Your task to perform on an android device: Do I have any events today? Image 0: 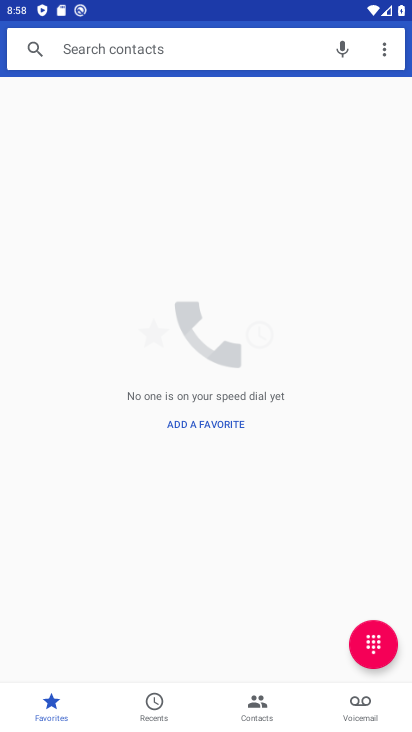
Step 0: press home button
Your task to perform on an android device: Do I have any events today? Image 1: 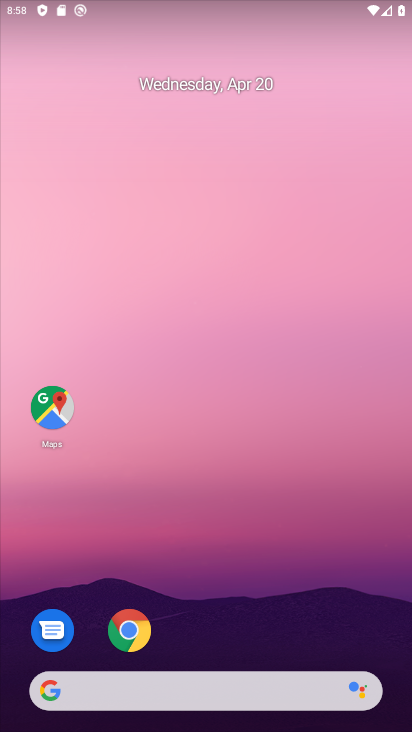
Step 1: drag from (341, 633) to (251, 132)
Your task to perform on an android device: Do I have any events today? Image 2: 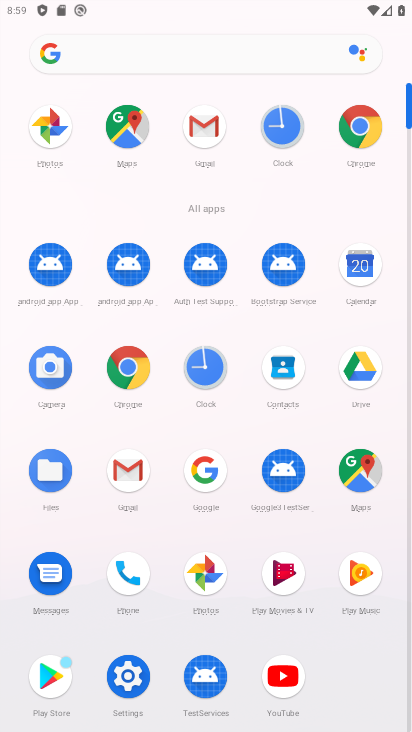
Step 2: click (364, 265)
Your task to perform on an android device: Do I have any events today? Image 3: 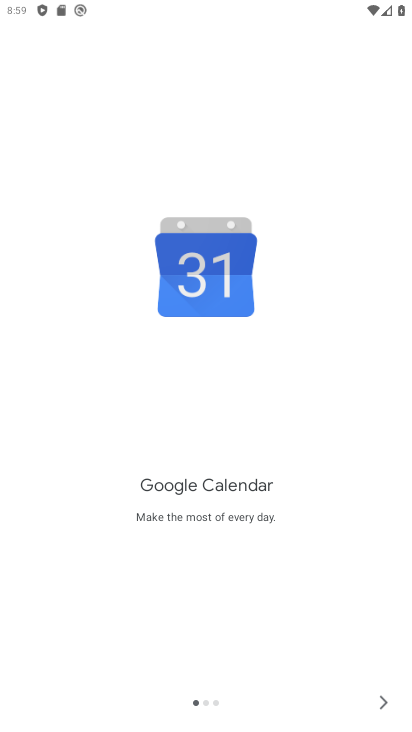
Step 3: click (380, 698)
Your task to perform on an android device: Do I have any events today? Image 4: 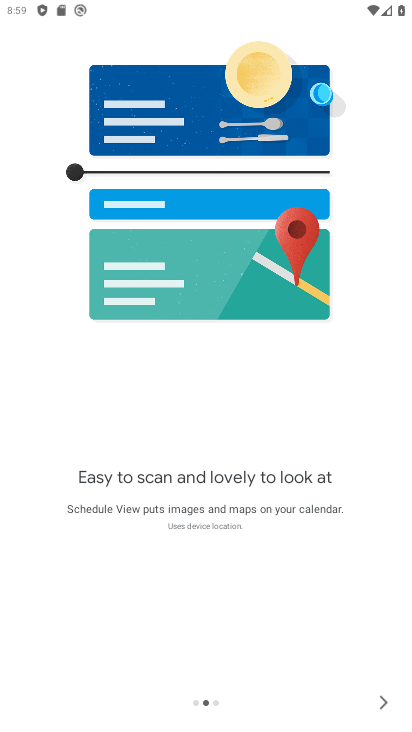
Step 4: click (380, 698)
Your task to perform on an android device: Do I have any events today? Image 5: 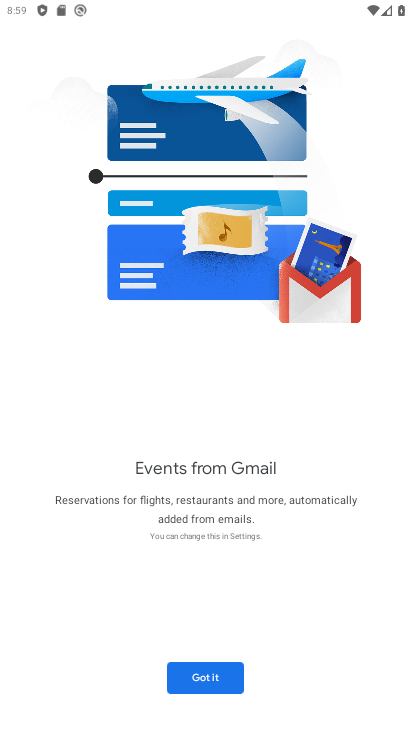
Step 5: click (225, 668)
Your task to perform on an android device: Do I have any events today? Image 6: 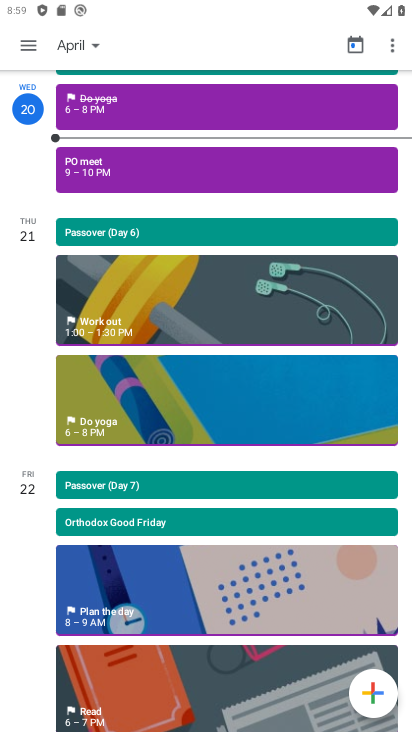
Step 6: click (91, 50)
Your task to perform on an android device: Do I have any events today? Image 7: 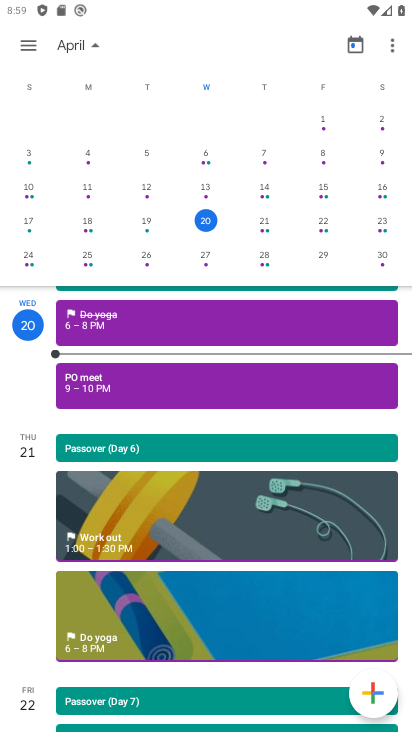
Step 7: click (22, 48)
Your task to perform on an android device: Do I have any events today? Image 8: 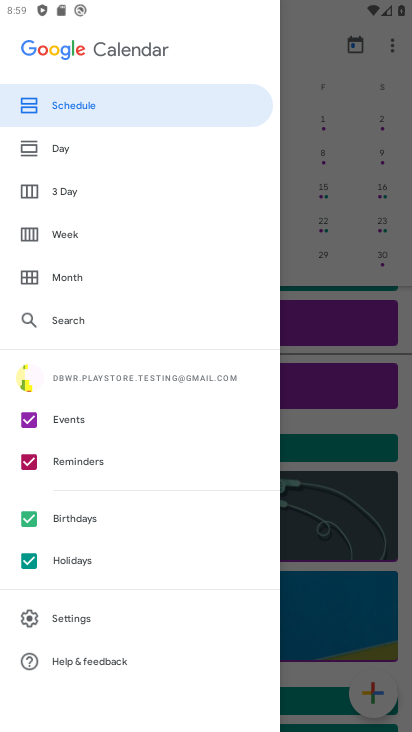
Step 8: click (28, 563)
Your task to perform on an android device: Do I have any events today? Image 9: 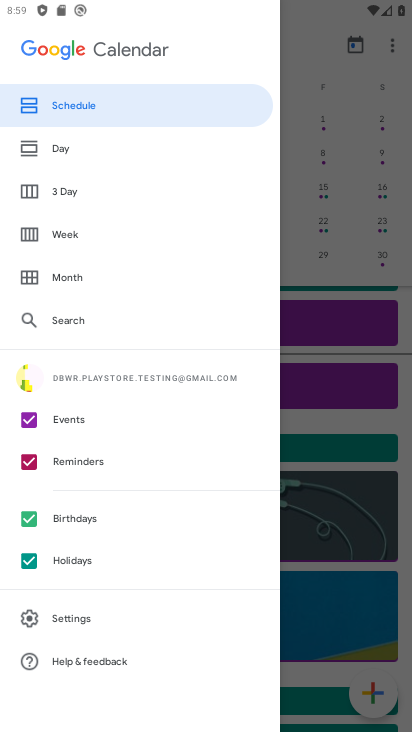
Step 9: click (27, 514)
Your task to perform on an android device: Do I have any events today? Image 10: 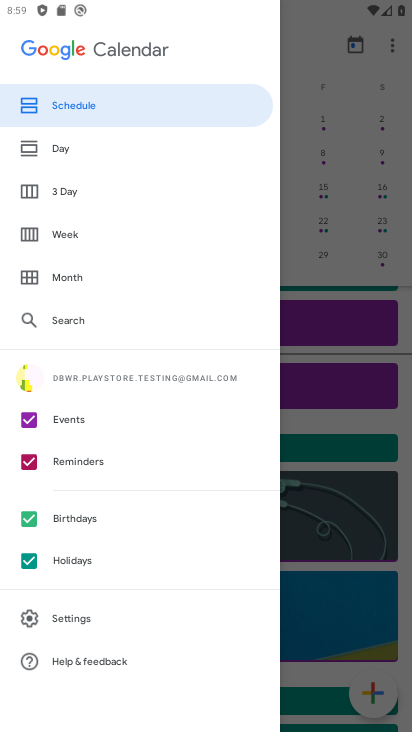
Step 10: click (28, 462)
Your task to perform on an android device: Do I have any events today? Image 11: 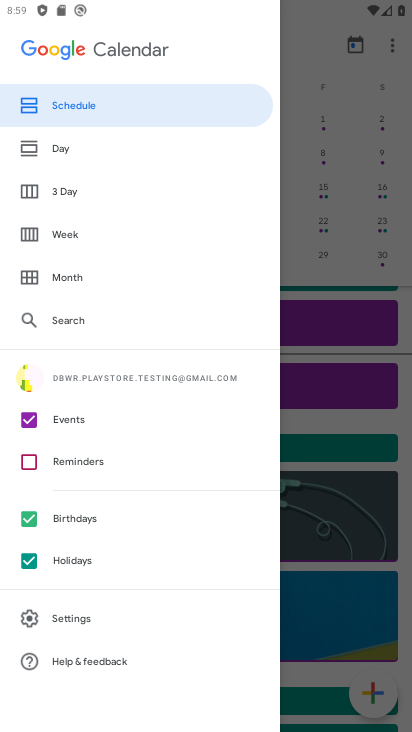
Step 11: click (28, 523)
Your task to perform on an android device: Do I have any events today? Image 12: 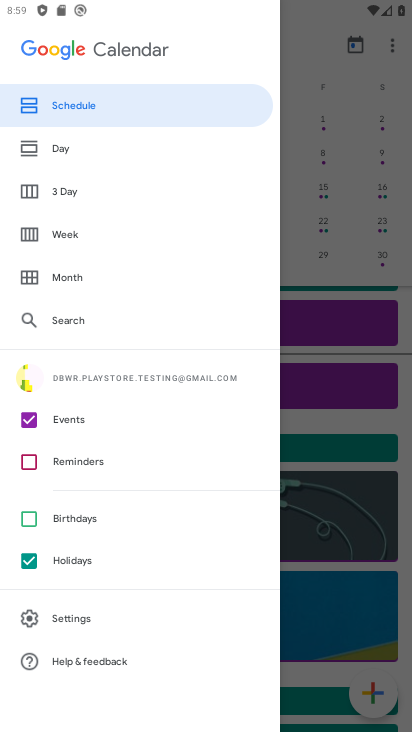
Step 12: click (28, 557)
Your task to perform on an android device: Do I have any events today? Image 13: 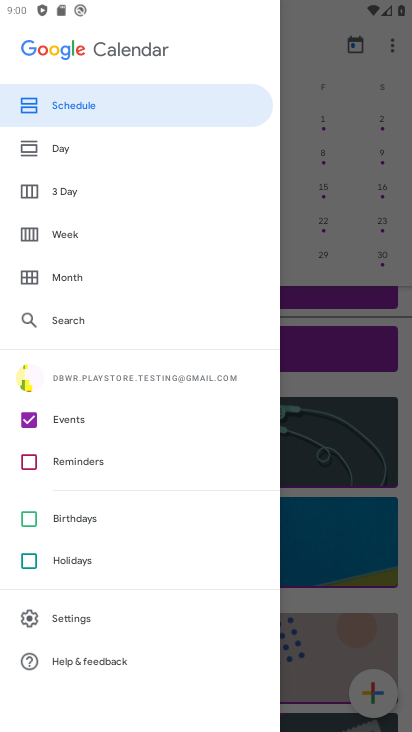
Step 13: click (115, 112)
Your task to perform on an android device: Do I have any events today? Image 14: 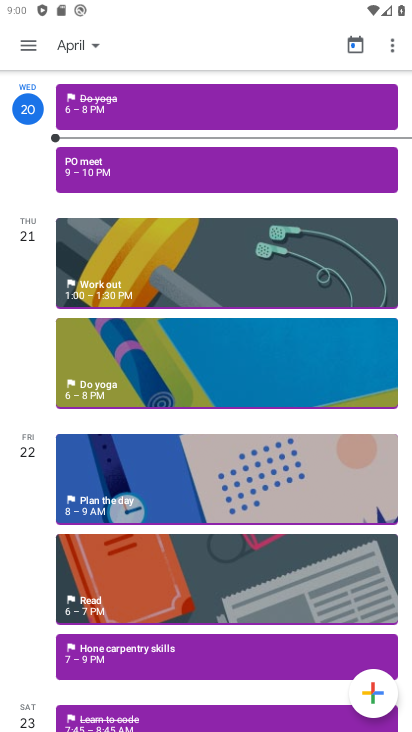
Step 14: click (96, 48)
Your task to perform on an android device: Do I have any events today? Image 15: 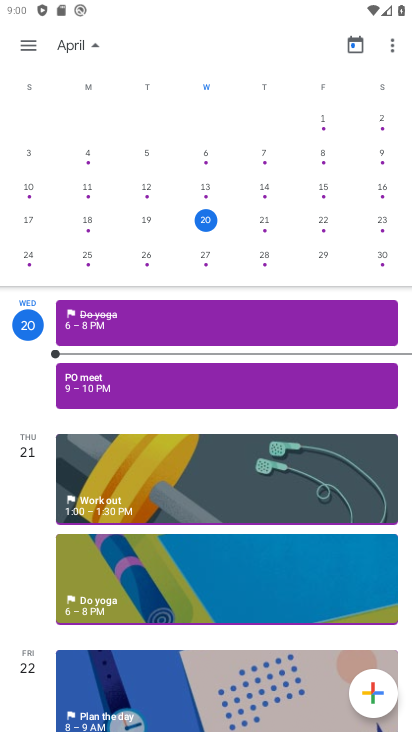
Step 15: click (267, 224)
Your task to perform on an android device: Do I have any events today? Image 16: 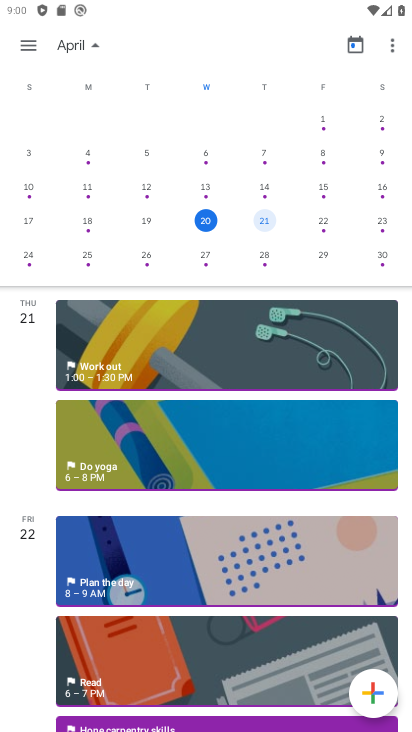
Step 16: click (89, 45)
Your task to perform on an android device: Do I have any events today? Image 17: 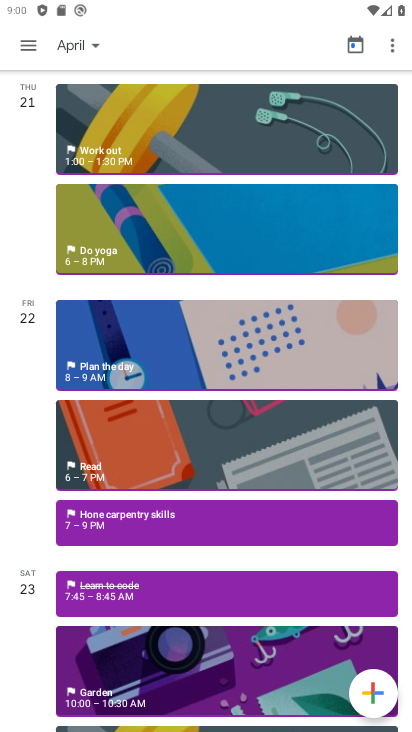
Step 17: task complete